Your task to perform on an android device: turn off location Image 0: 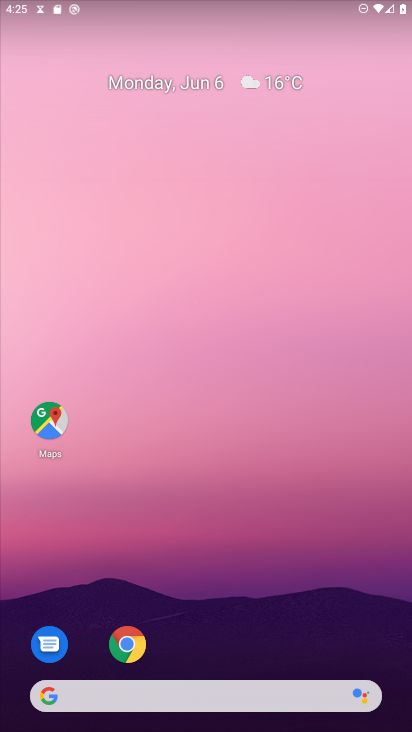
Step 0: drag from (141, 710) to (112, 182)
Your task to perform on an android device: turn off location Image 1: 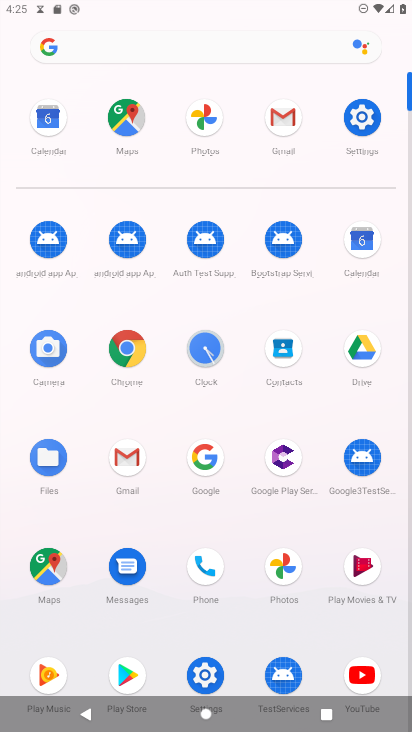
Step 1: click (361, 121)
Your task to perform on an android device: turn off location Image 2: 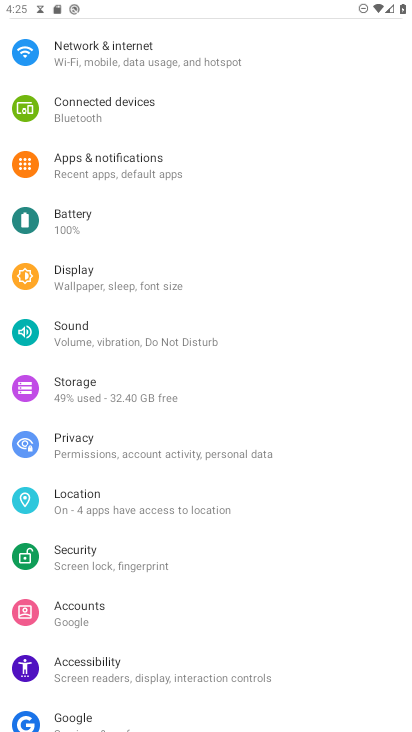
Step 2: click (174, 500)
Your task to perform on an android device: turn off location Image 3: 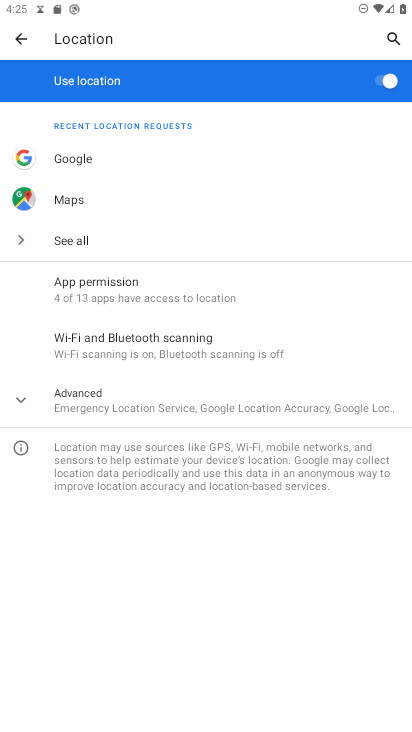
Step 3: click (384, 82)
Your task to perform on an android device: turn off location Image 4: 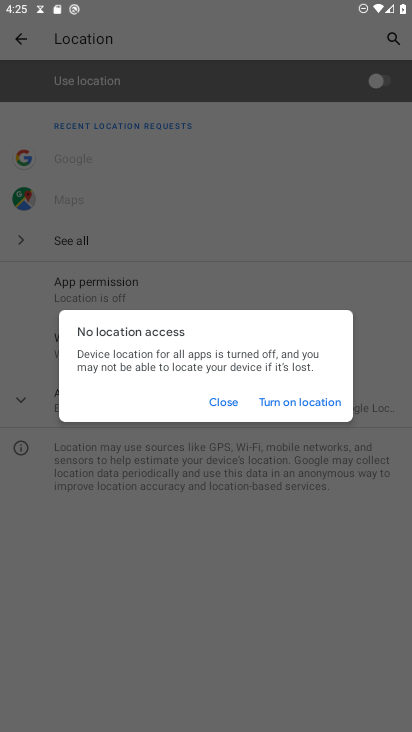
Step 4: click (214, 410)
Your task to perform on an android device: turn off location Image 5: 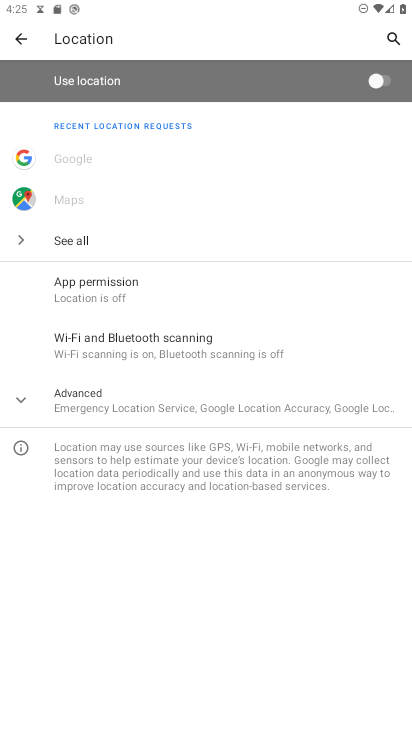
Step 5: task complete